Your task to perform on an android device: What's the weather going to be this weekend? Image 0: 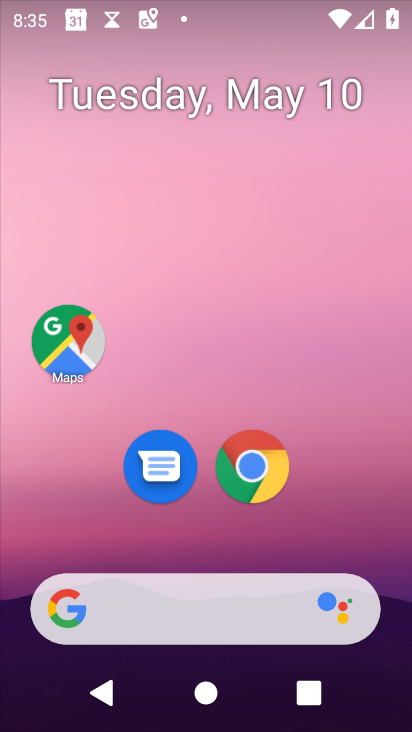
Step 0: drag from (243, 541) to (57, 3)
Your task to perform on an android device: What's the weather going to be this weekend? Image 1: 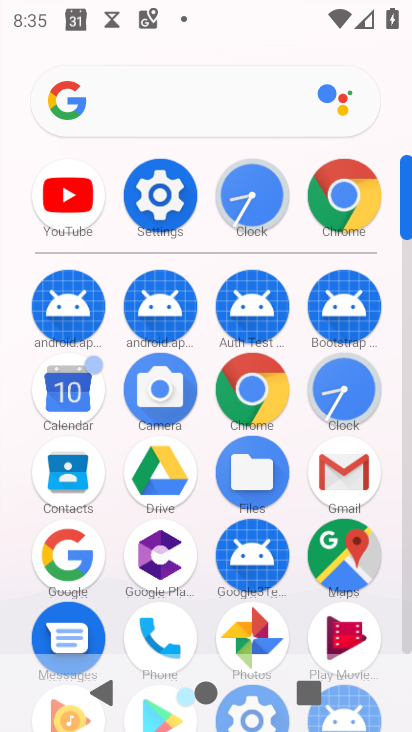
Step 1: click (149, 119)
Your task to perform on an android device: What's the weather going to be this weekend? Image 2: 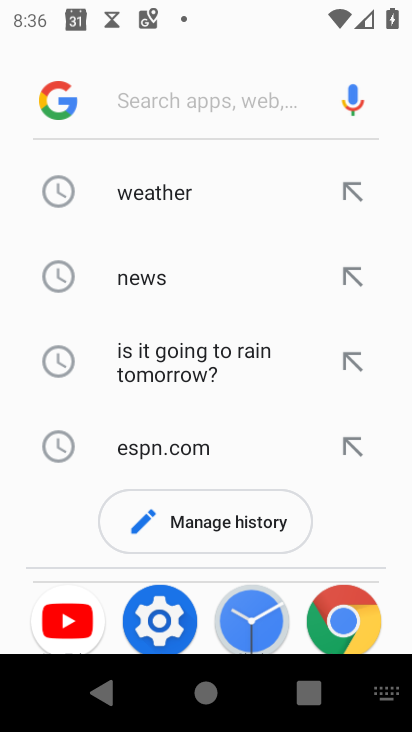
Step 2: type "what's the weather going to be this weekend"
Your task to perform on an android device: What's the weather going to be this weekend? Image 3: 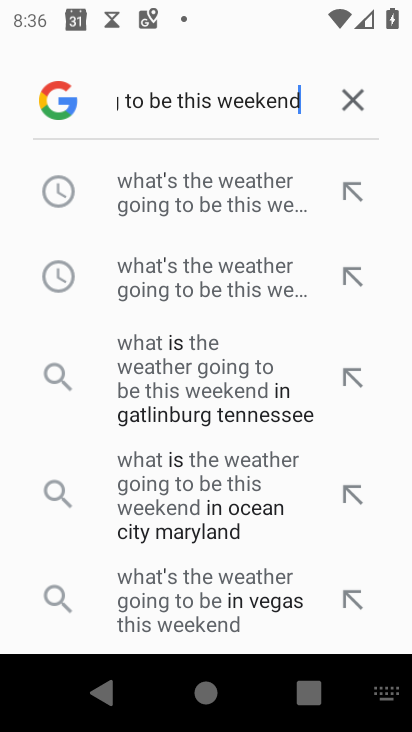
Step 3: click (243, 172)
Your task to perform on an android device: What's the weather going to be this weekend? Image 4: 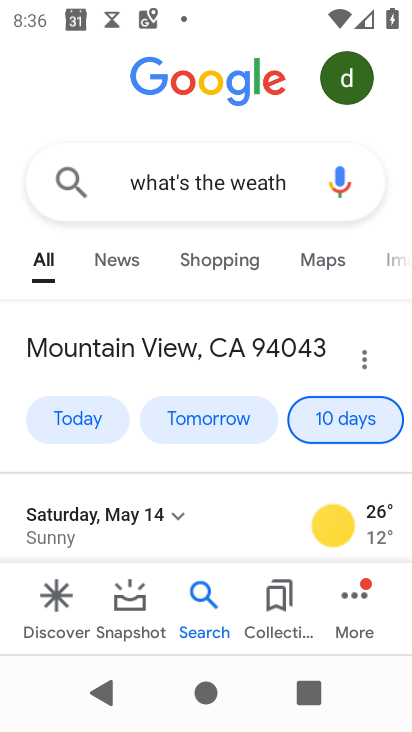
Step 4: task complete